Your task to perform on an android device: What's on my calendar today? Image 0: 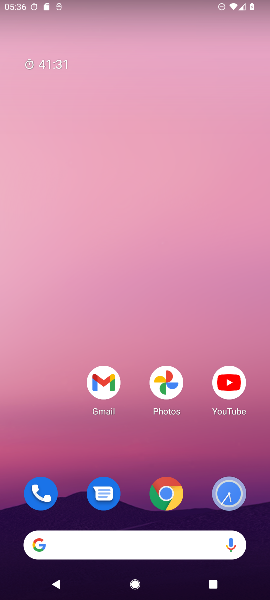
Step 0: press home button
Your task to perform on an android device: What's on my calendar today? Image 1: 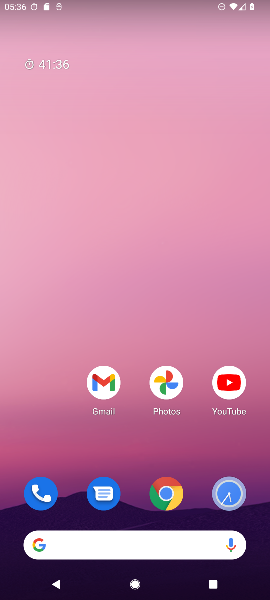
Step 1: drag from (62, 450) to (66, 132)
Your task to perform on an android device: What's on my calendar today? Image 2: 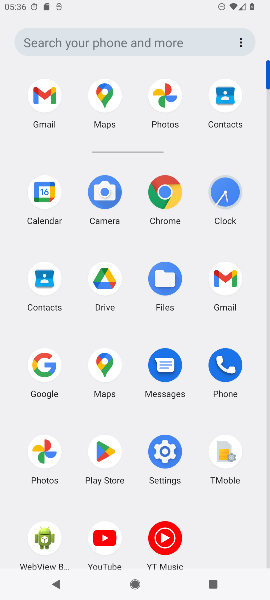
Step 2: click (45, 189)
Your task to perform on an android device: What's on my calendar today? Image 3: 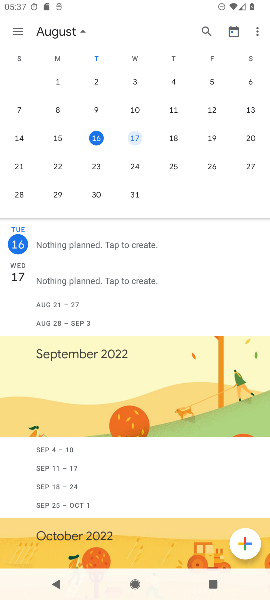
Step 3: task complete